Your task to perform on an android device: turn off javascript in the chrome app Image 0: 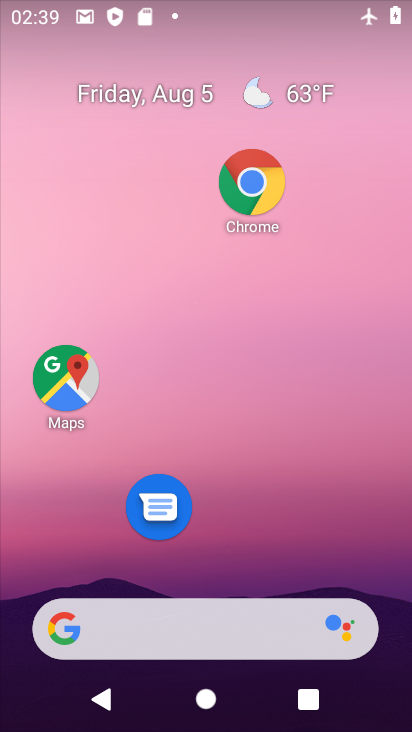
Step 0: click (258, 225)
Your task to perform on an android device: turn off javascript in the chrome app Image 1: 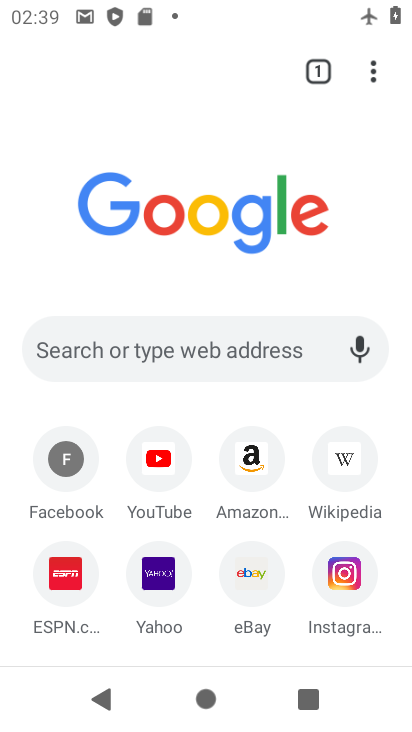
Step 1: click (370, 71)
Your task to perform on an android device: turn off javascript in the chrome app Image 2: 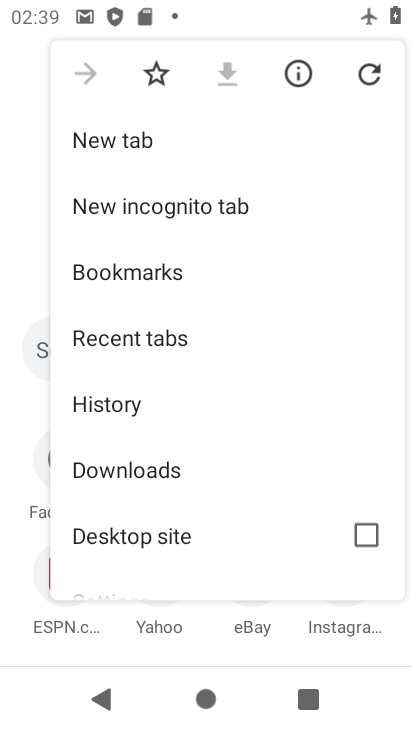
Step 2: drag from (126, 531) to (146, 262)
Your task to perform on an android device: turn off javascript in the chrome app Image 3: 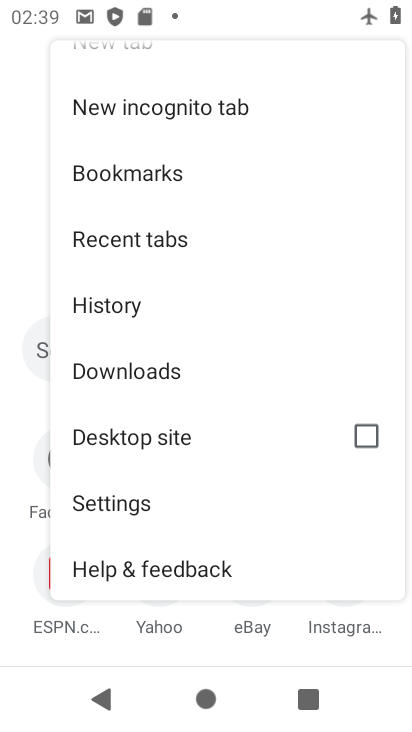
Step 3: click (133, 514)
Your task to perform on an android device: turn off javascript in the chrome app Image 4: 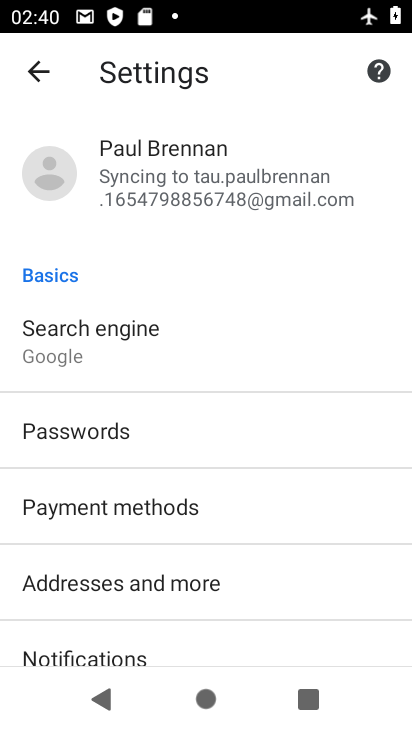
Step 4: drag from (123, 608) to (141, 416)
Your task to perform on an android device: turn off javascript in the chrome app Image 5: 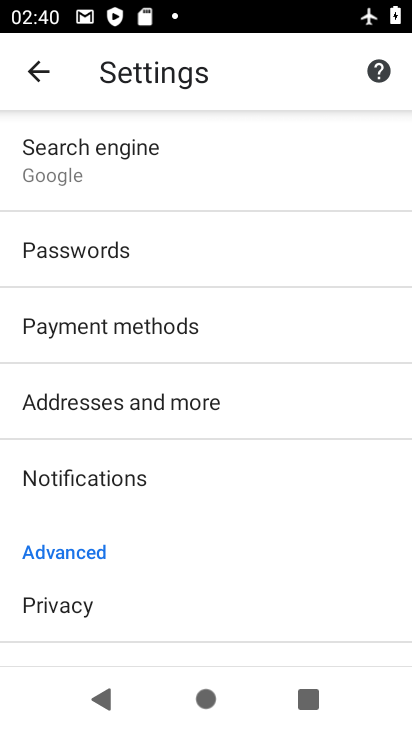
Step 5: drag from (128, 571) to (143, 398)
Your task to perform on an android device: turn off javascript in the chrome app Image 6: 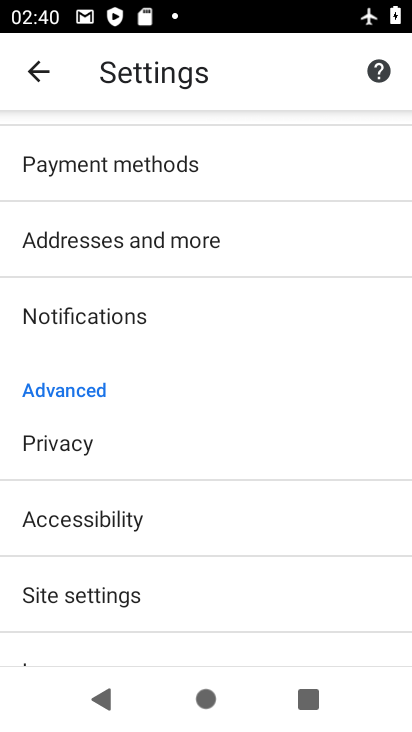
Step 6: click (85, 601)
Your task to perform on an android device: turn off javascript in the chrome app Image 7: 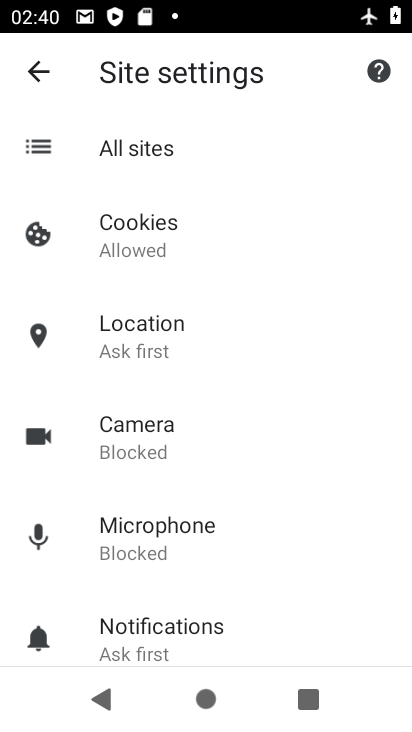
Step 7: drag from (144, 543) to (143, 266)
Your task to perform on an android device: turn off javascript in the chrome app Image 8: 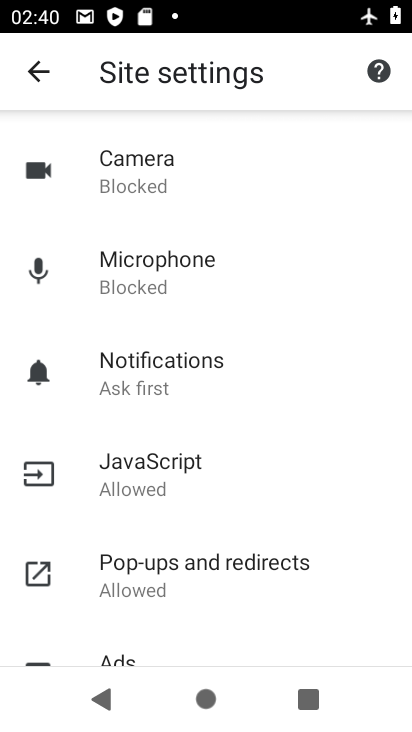
Step 8: click (149, 484)
Your task to perform on an android device: turn off javascript in the chrome app Image 9: 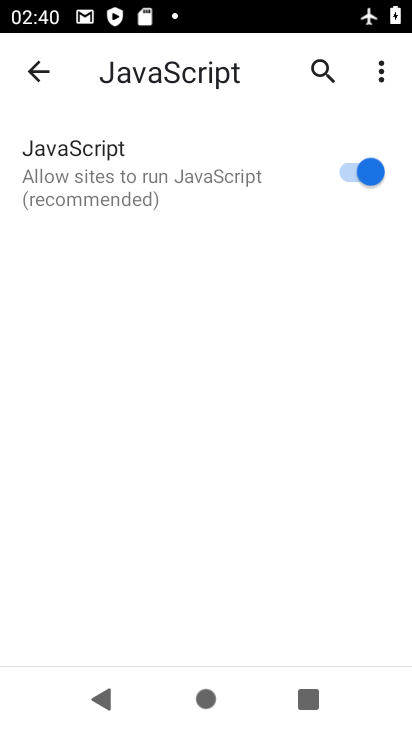
Step 9: click (322, 161)
Your task to perform on an android device: turn off javascript in the chrome app Image 10: 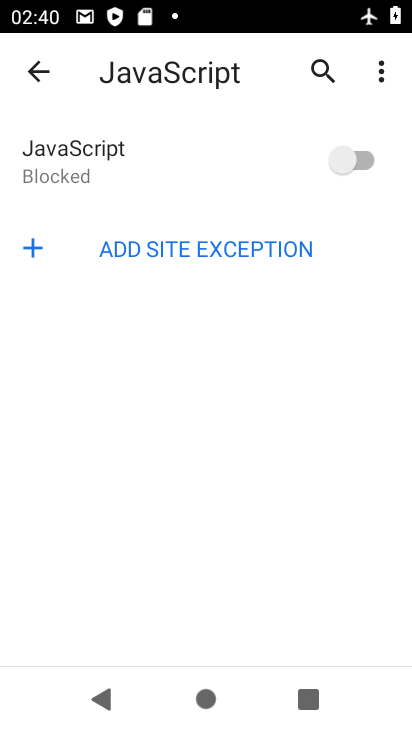
Step 10: task complete